Your task to perform on an android device: turn on the 12-hour format for clock Image 0: 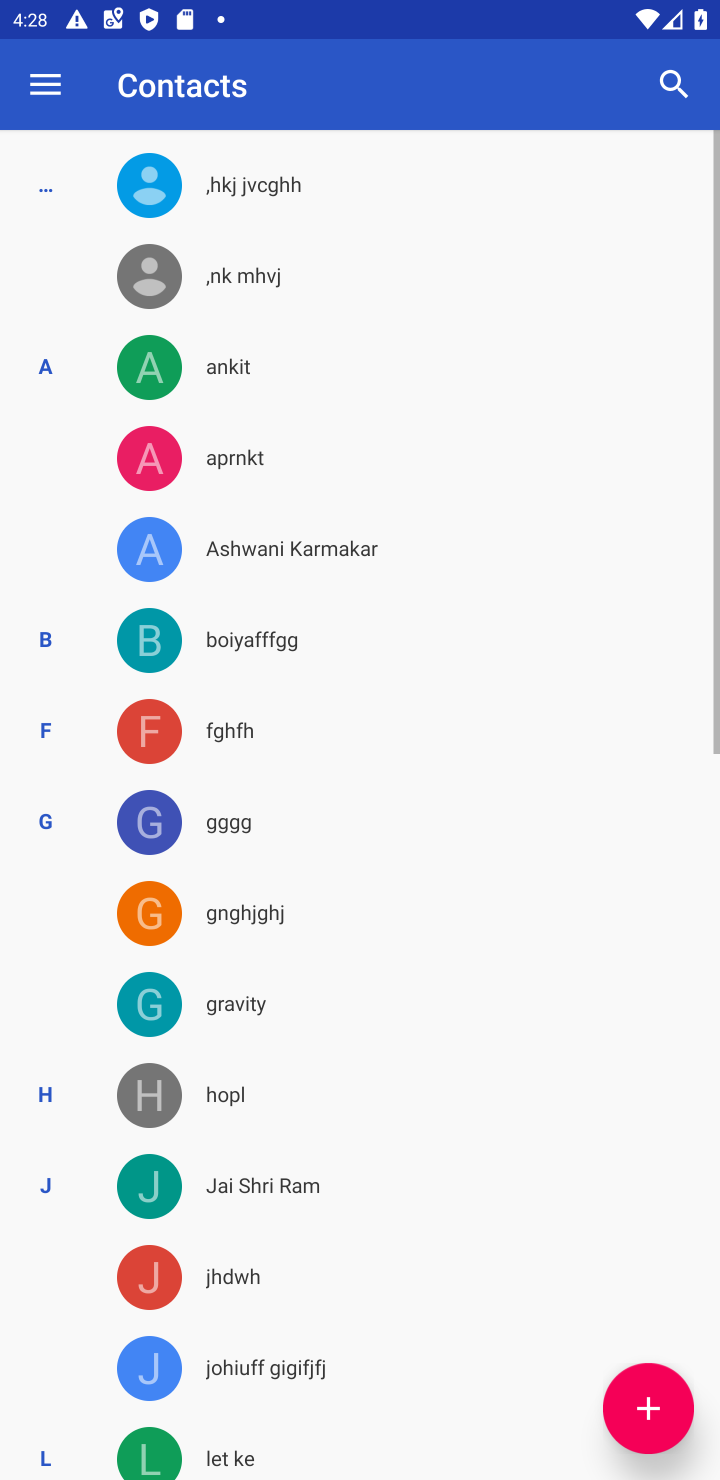
Step 0: press home button
Your task to perform on an android device: turn on the 12-hour format for clock Image 1: 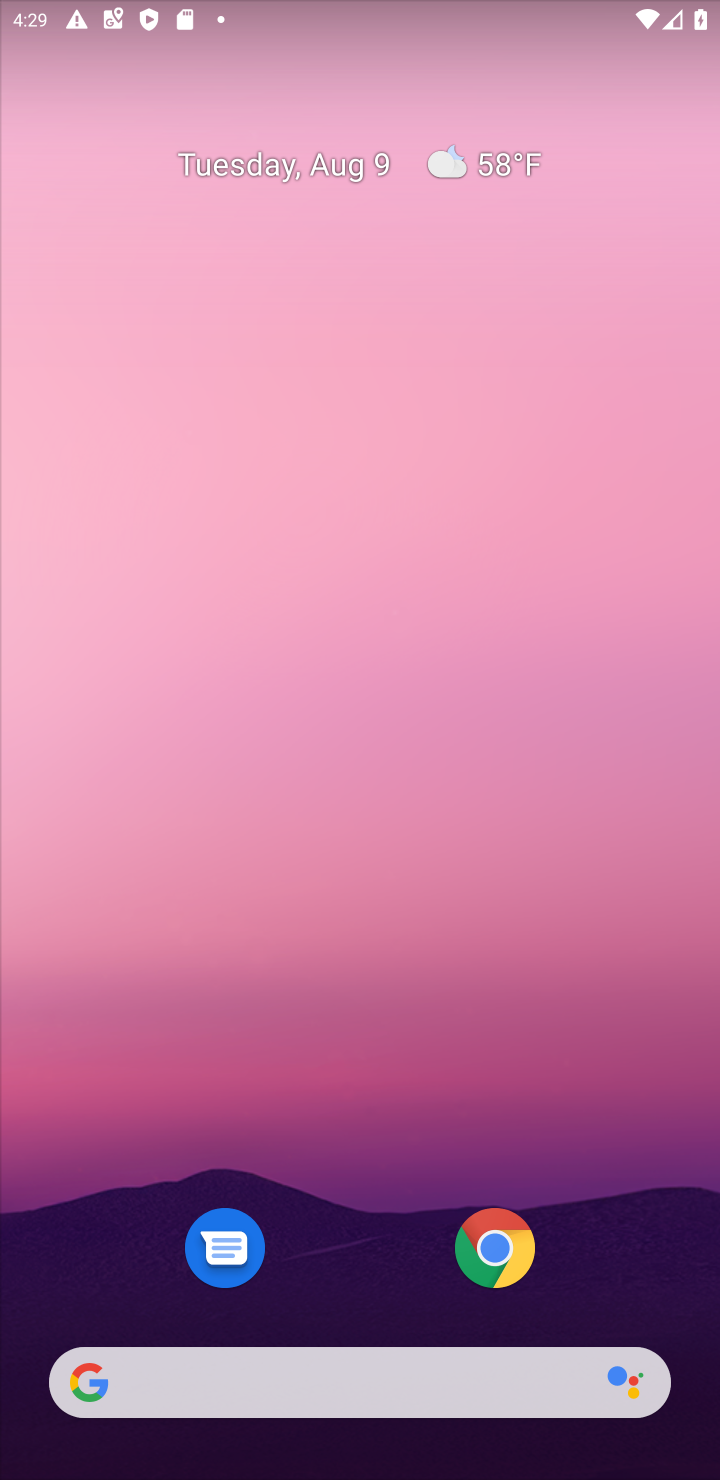
Step 1: drag from (279, 1083) to (105, 512)
Your task to perform on an android device: turn on the 12-hour format for clock Image 2: 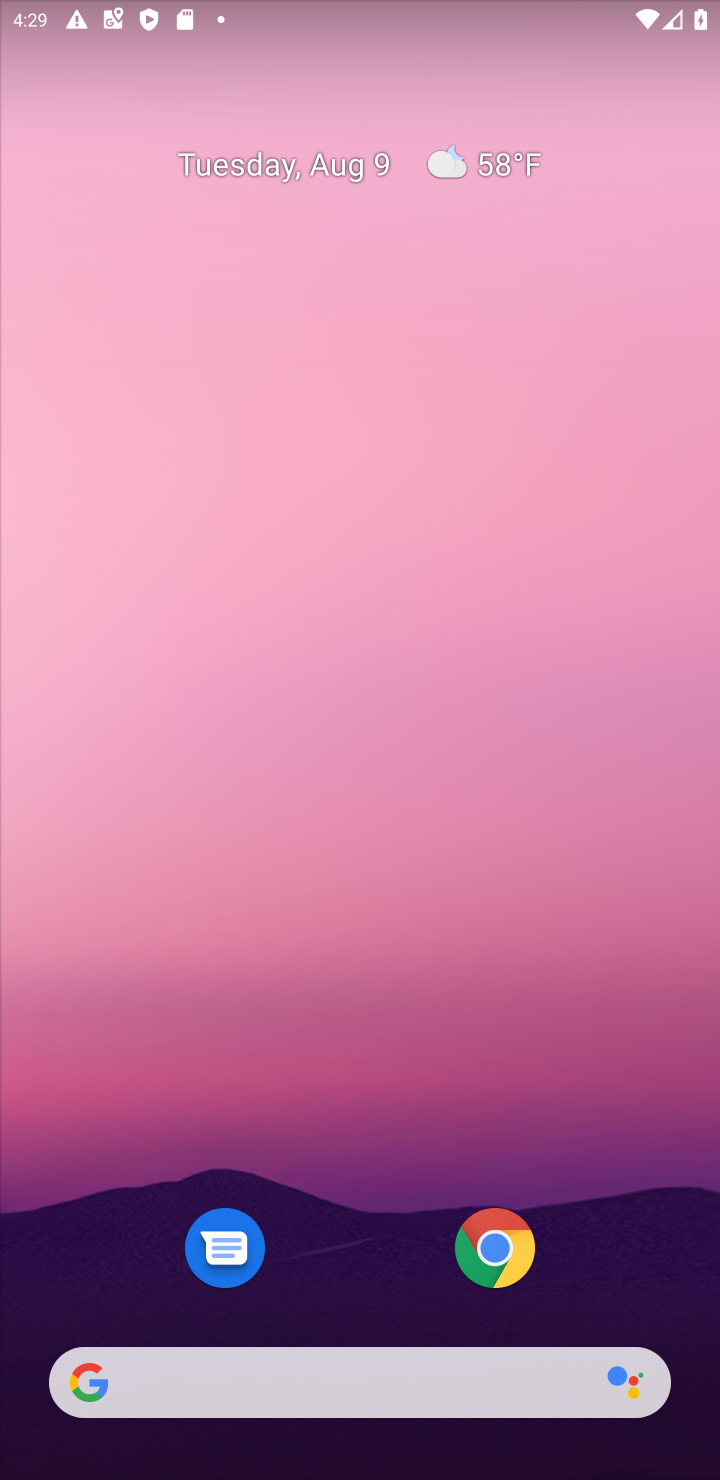
Step 2: drag from (389, 1247) to (299, 0)
Your task to perform on an android device: turn on the 12-hour format for clock Image 3: 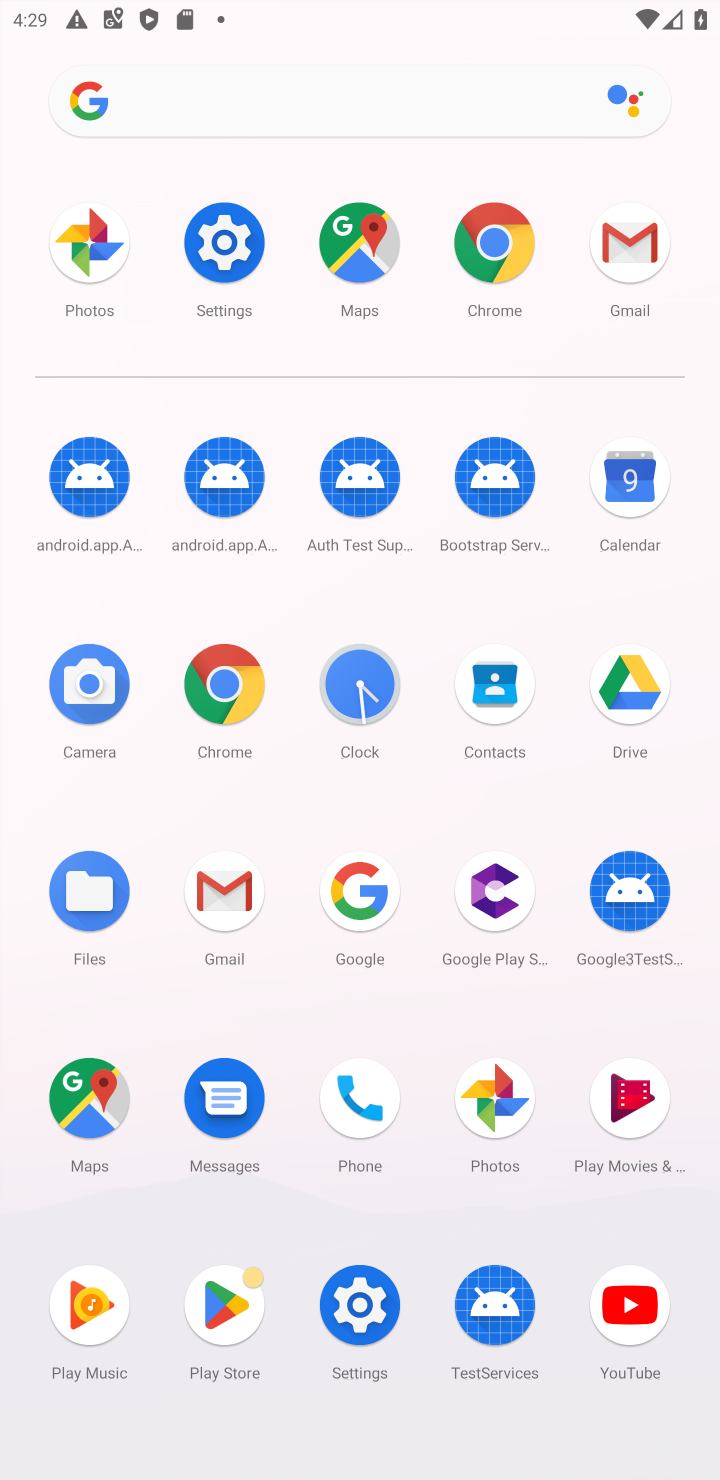
Step 3: click (354, 686)
Your task to perform on an android device: turn on the 12-hour format for clock Image 4: 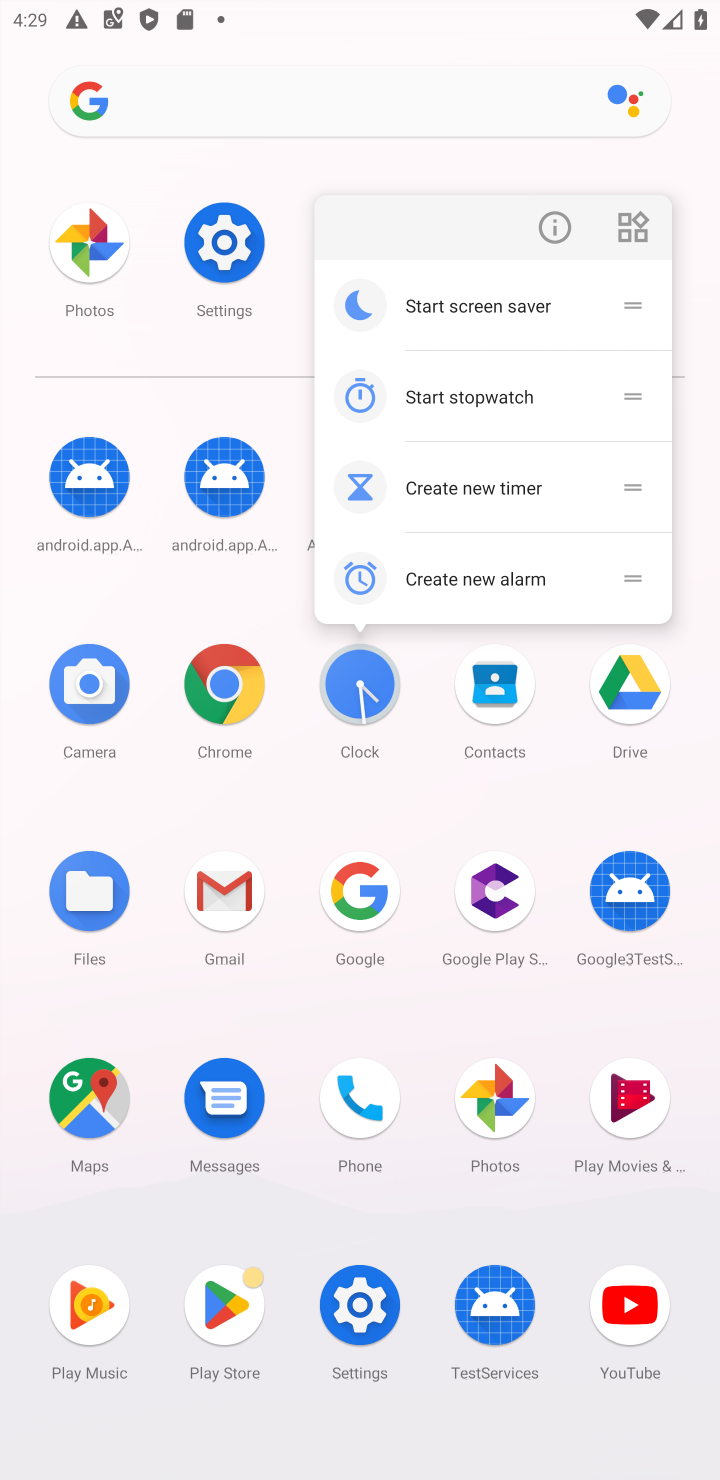
Step 4: click (354, 686)
Your task to perform on an android device: turn on the 12-hour format for clock Image 5: 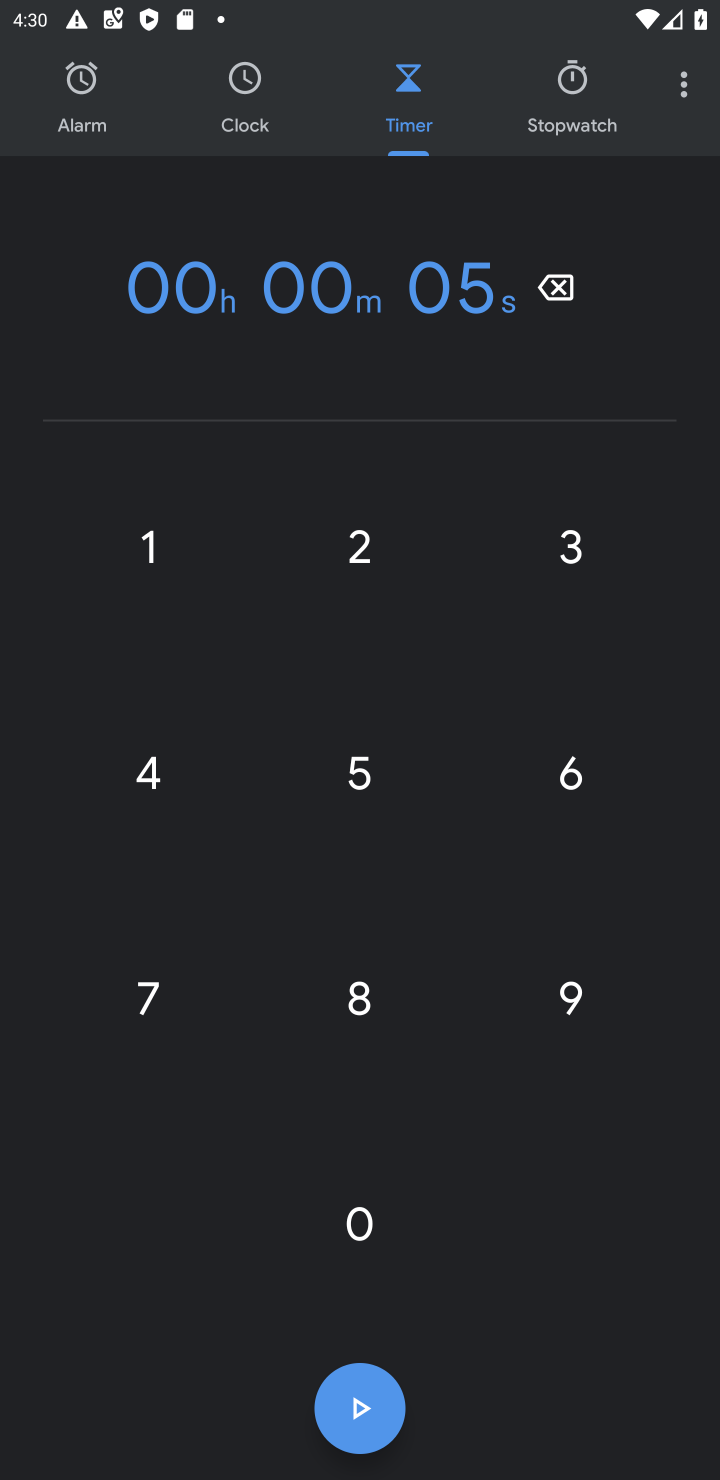
Step 5: click (667, 88)
Your task to perform on an android device: turn on the 12-hour format for clock Image 6: 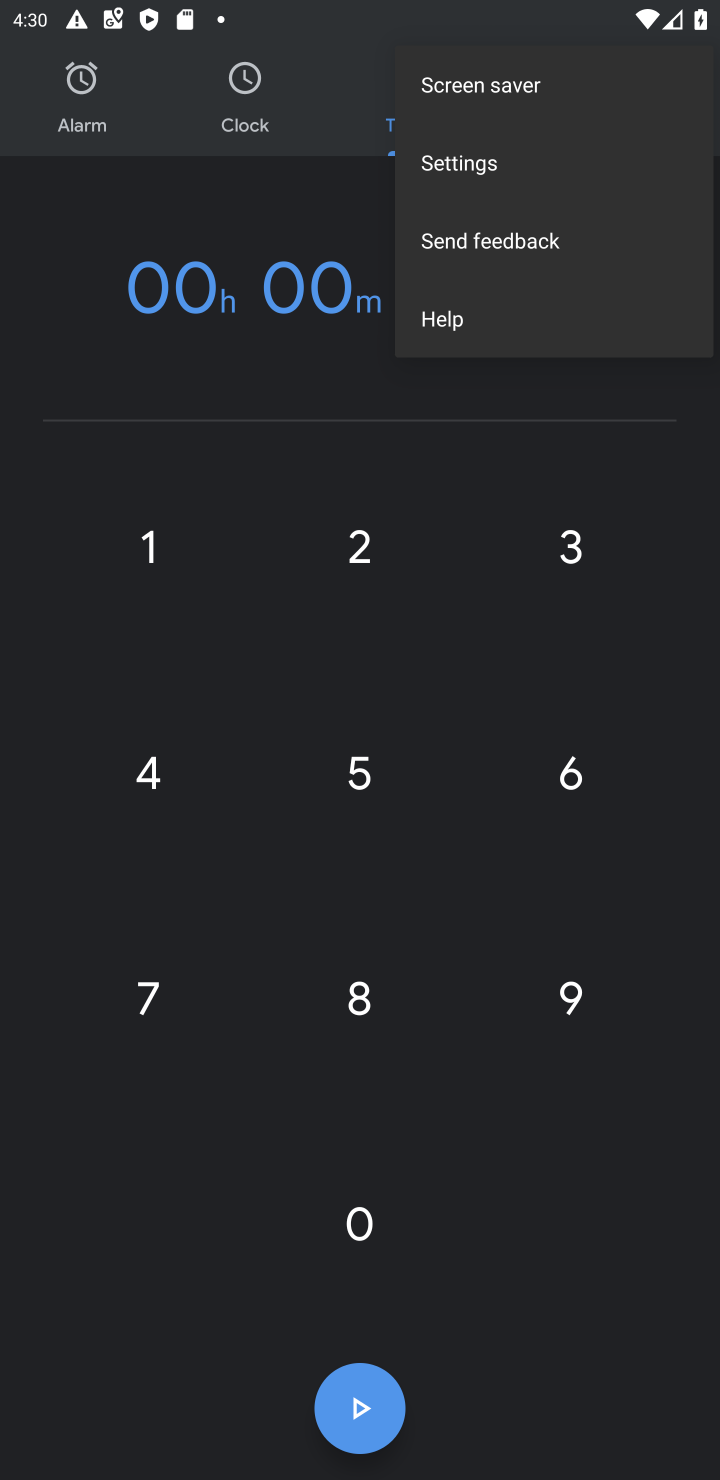
Step 6: click (451, 164)
Your task to perform on an android device: turn on the 12-hour format for clock Image 7: 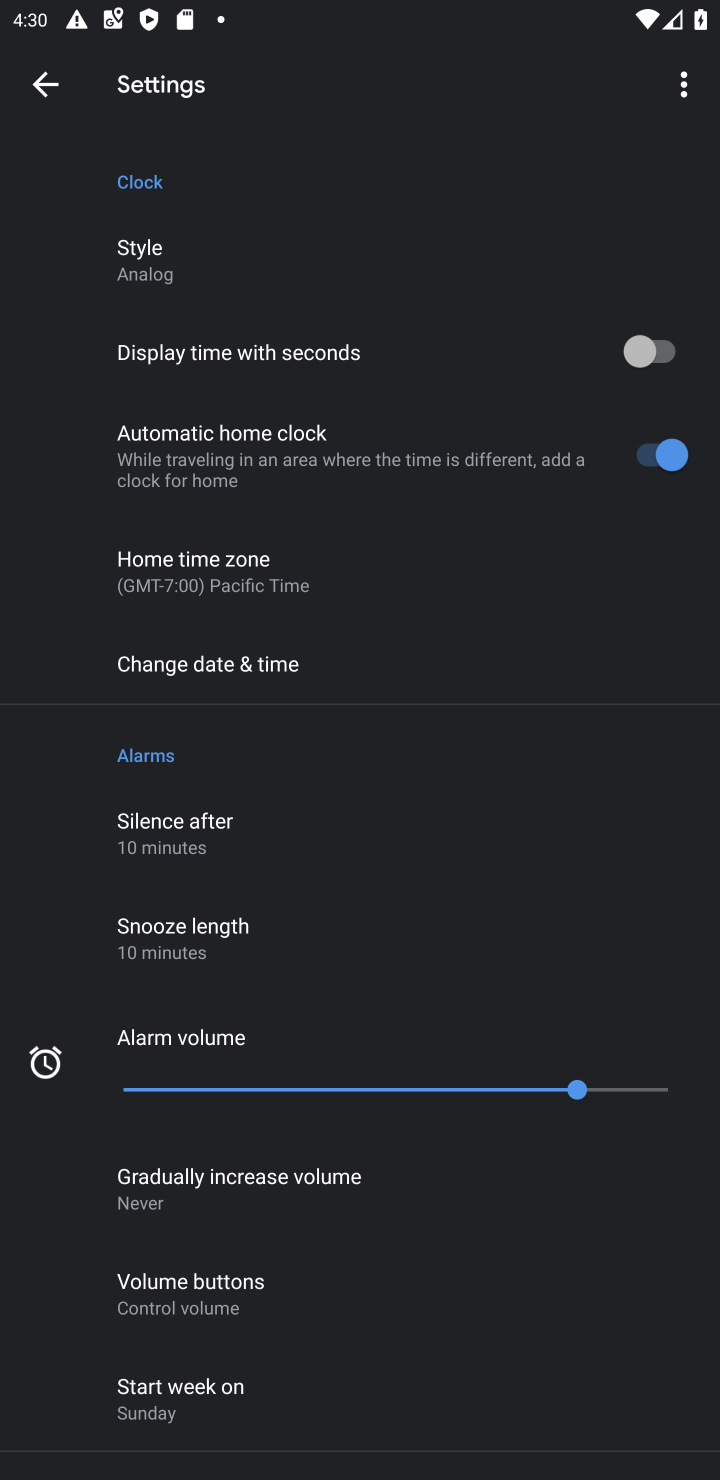
Step 7: click (168, 653)
Your task to perform on an android device: turn on the 12-hour format for clock Image 8: 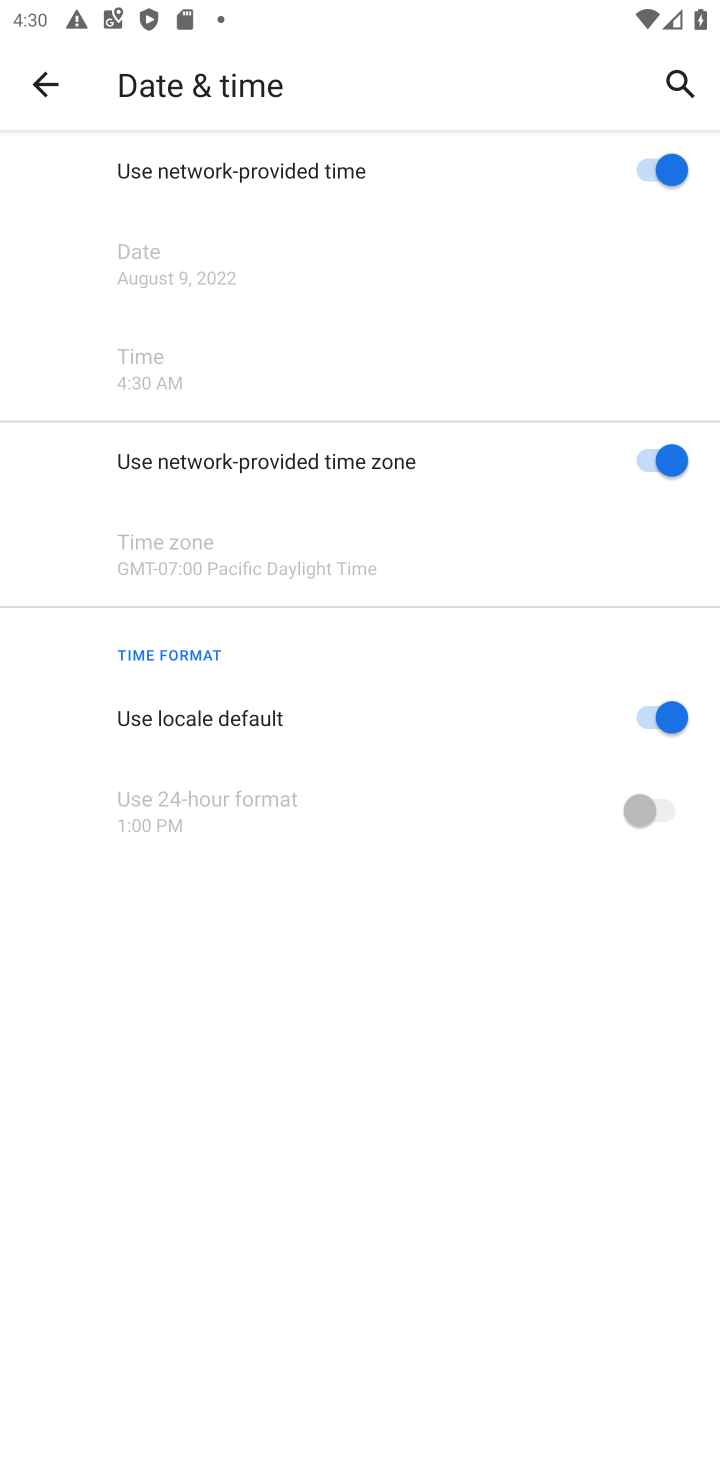
Step 8: task complete